Your task to perform on an android device: change the clock display to show seconds Image 0: 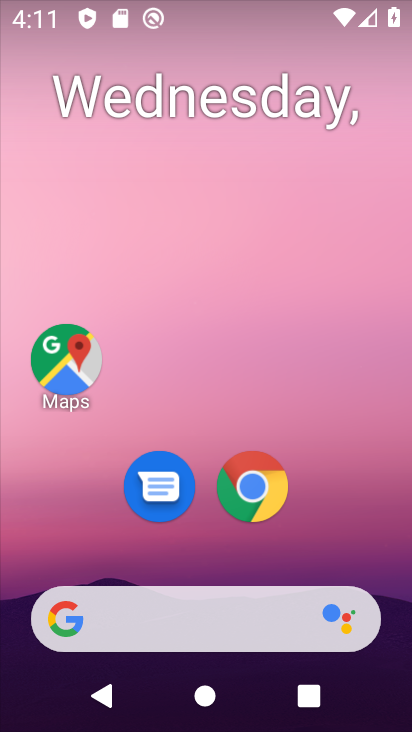
Step 0: press home button
Your task to perform on an android device: change the clock display to show seconds Image 1: 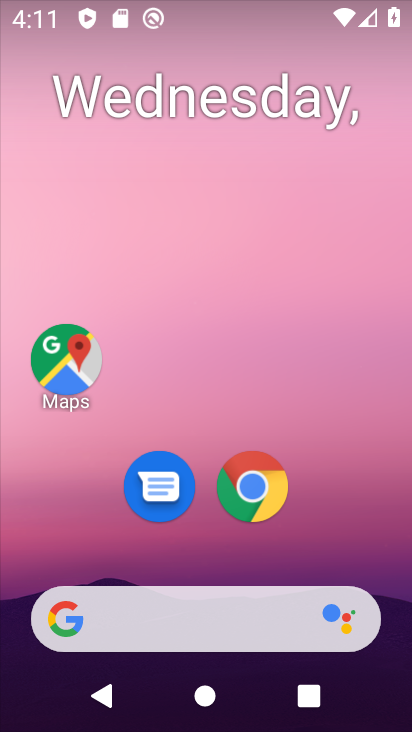
Step 1: drag from (219, 596) to (279, 136)
Your task to perform on an android device: change the clock display to show seconds Image 2: 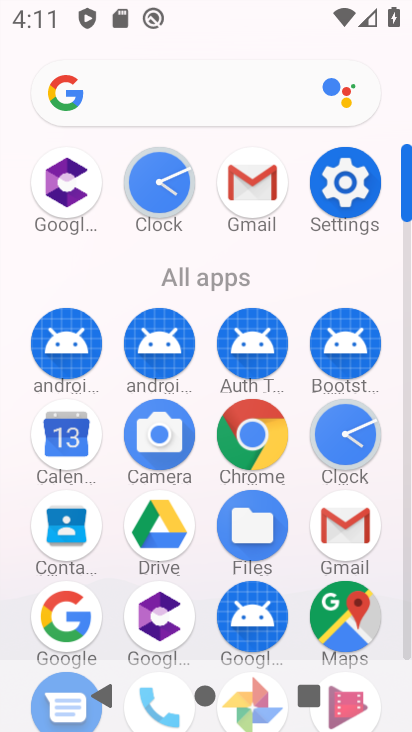
Step 2: click (340, 453)
Your task to perform on an android device: change the clock display to show seconds Image 3: 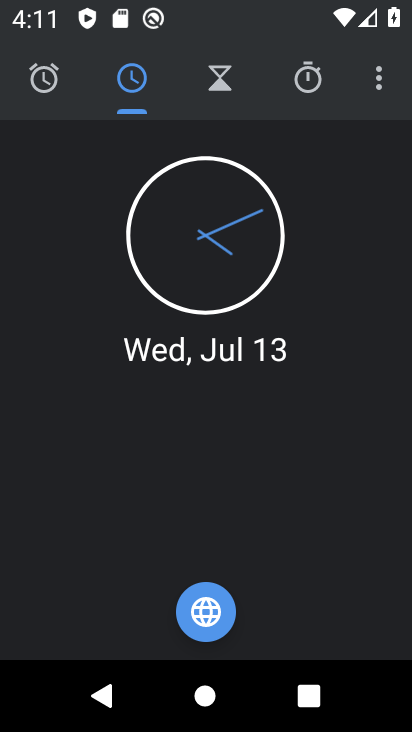
Step 3: click (391, 95)
Your task to perform on an android device: change the clock display to show seconds Image 4: 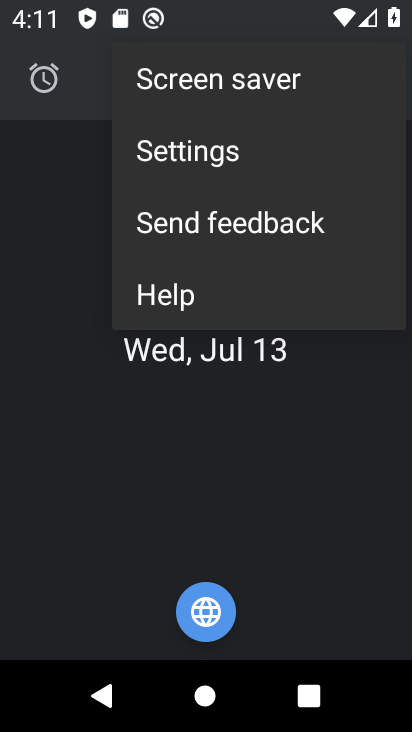
Step 4: click (200, 150)
Your task to perform on an android device: change the clock display to show seconds Image 5: 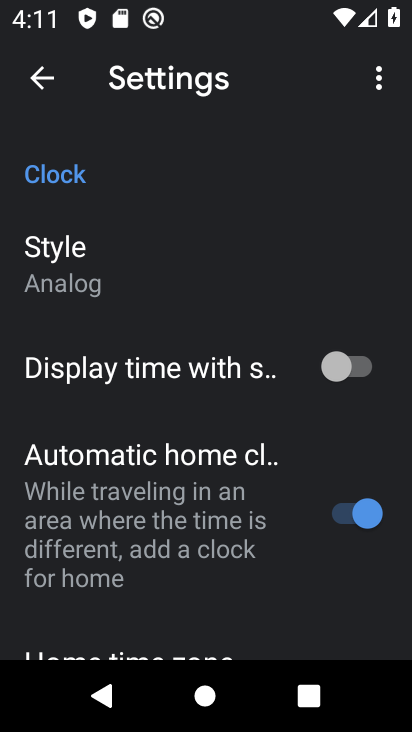
Step 5: click (364, 380)
Your task to perform on an android device: change the clock display to show seconds Image 6: 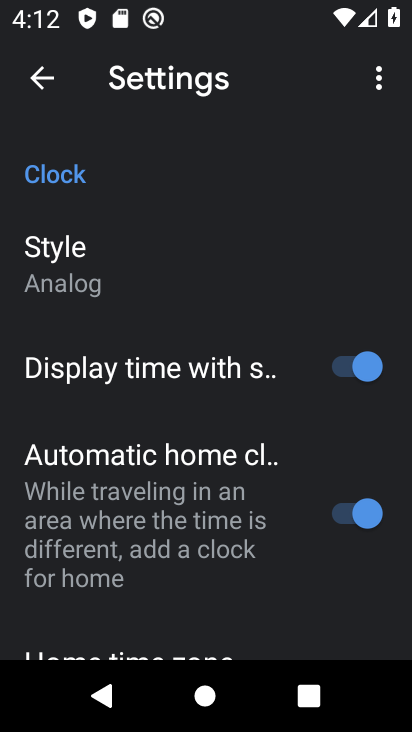
Step 6: task complete